Your task to perform on an android device: check battery use Image 0: 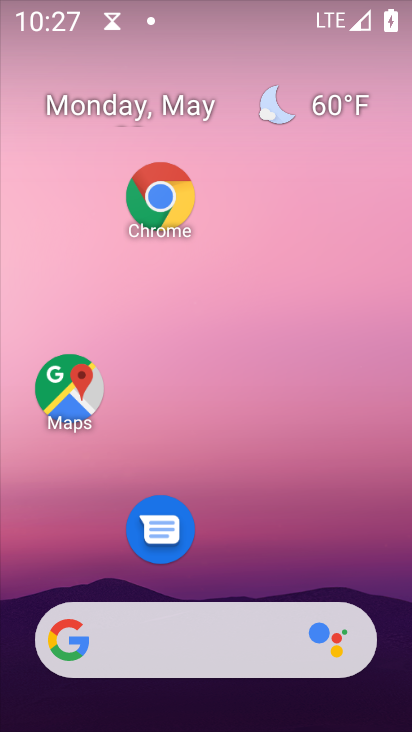
Step 0: drag from (234, 553) to (226, 133)
Your task to perform on an android device: check battery use Image 1: 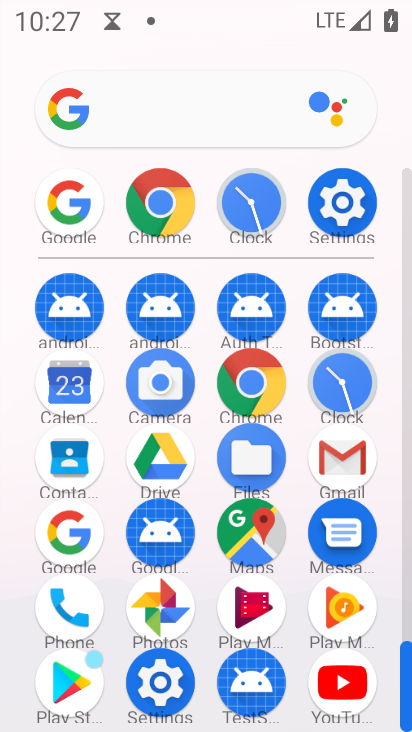
Step 1: click (360, 233)
Your task to perform on an android device: check battery use Image 2: 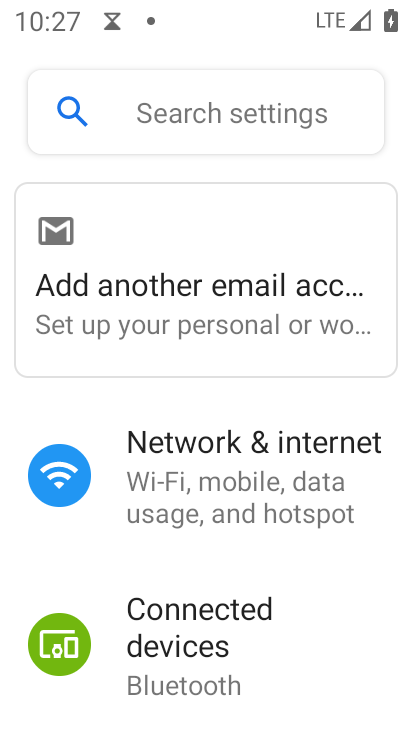
Step 2: drag from (276, 609) to (248, 330)
Your task to perform on an android device: check battery use Image 3: 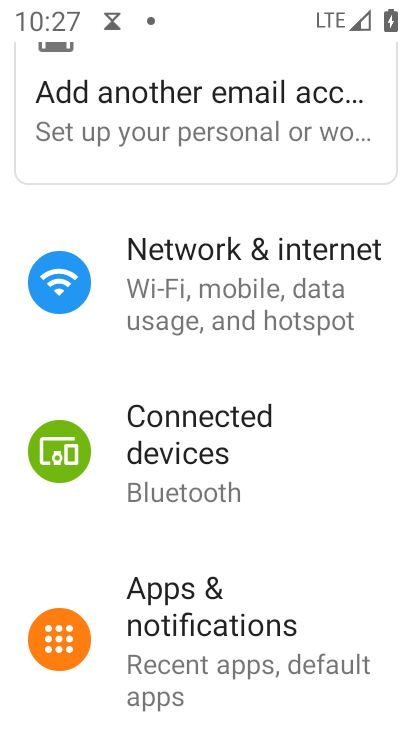
Step 3: drag from (182, 696) to (220, 348)
Your task to perform on an android device: check battery use Image 4: 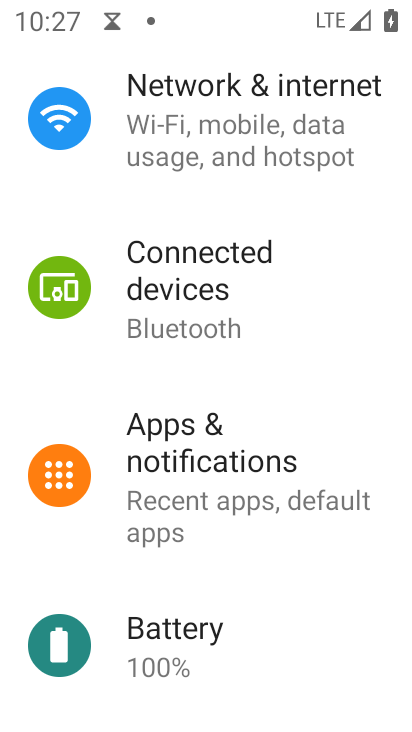
Step 4: click (128, 661)
Your task to perform on an android device: check battery use Image 5: 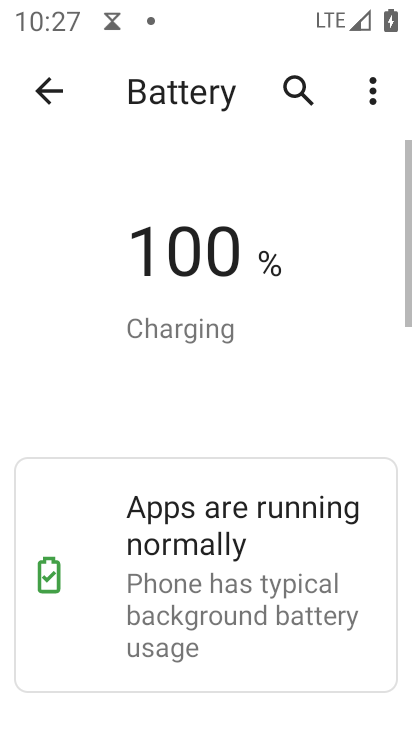
Step 5: task complete